Your task to perform on an android device: Open Chrome and go to settings Image 0: 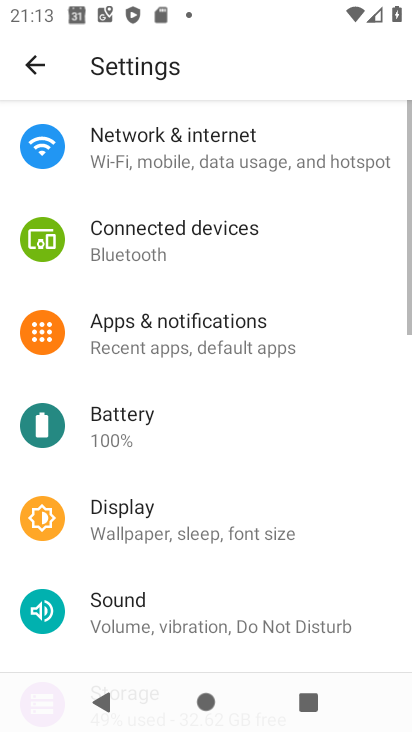
Step 0: press home button
Your task to perform on an android device: Open Chrome and go to settings Image 1: 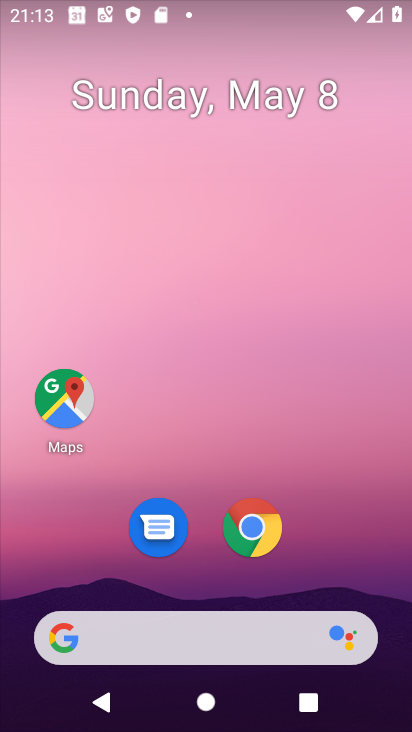
Step 1: click (247, 529)
Your task to perform on an android device: Open Chrome and go to settings Image 2: 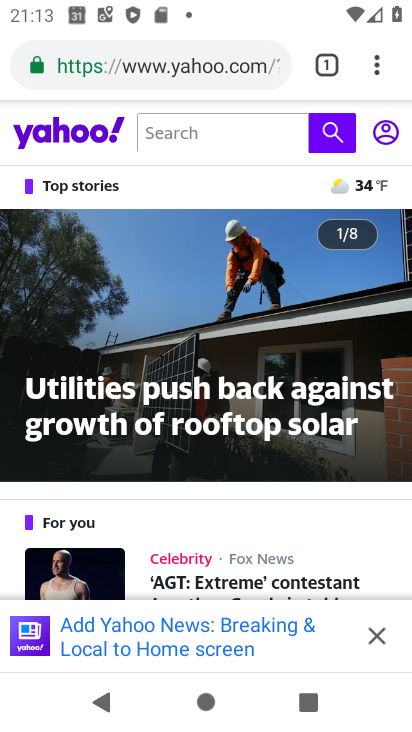
Step 2: click (369, 65)
Your task to perform on an android device: Open Chrome and go to settings Image 3: 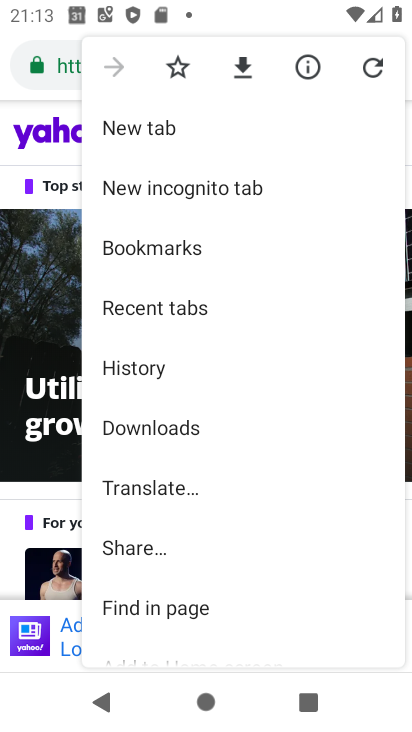
Step 3: drag from (260, 591) to (283, 35)
Your task to perform on an android device: Open Chrome and go to settings Image 4: 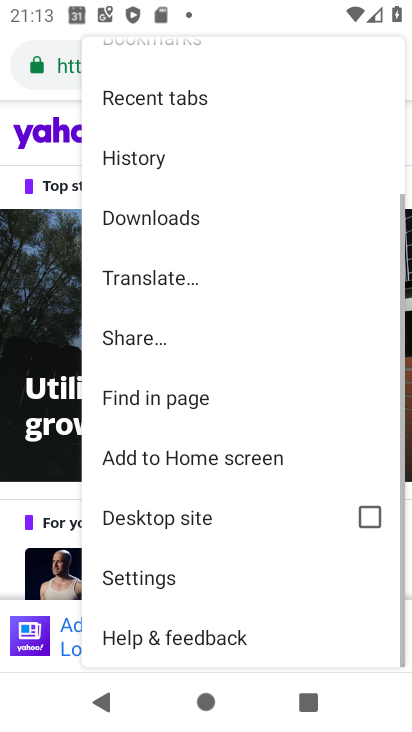
Step 4: click (156, 570)
Your task to perform on an android device: Open Chrome and go to settings Image 5: 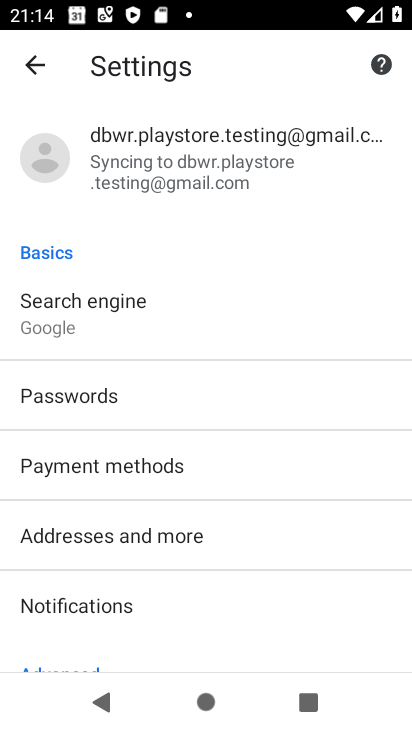
Step 5: task complete